Your task to perform on an android device: change text size in settings app Image 0: 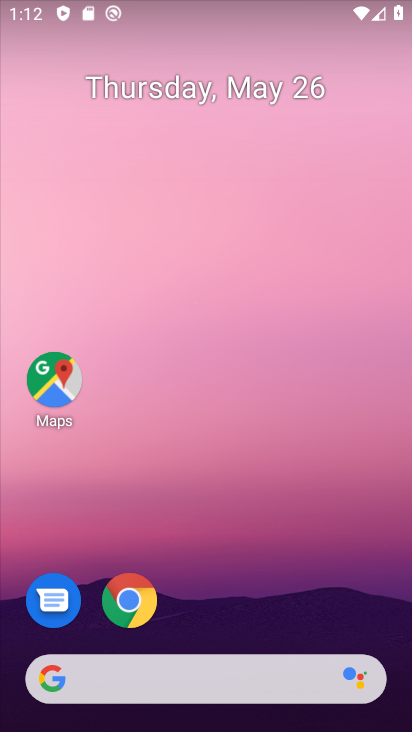
Step 0: drag from (243, 533) to (218, 77)
Your task to perform on an android device: change text size in settings app Image 1: 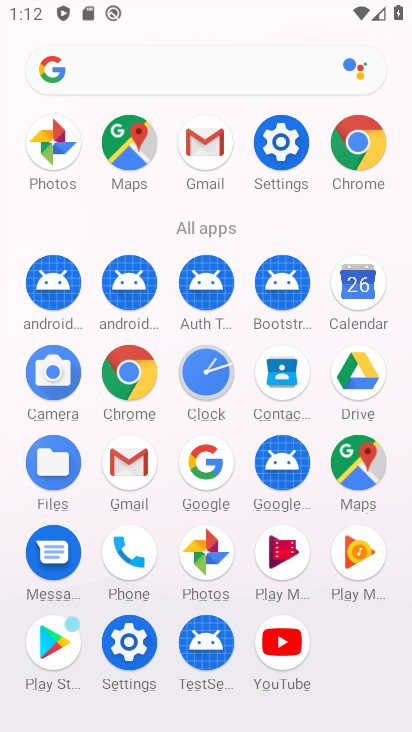
Step 1: click (282, 142)
Your task to perform on an android device: change text size in settings app Image 2: 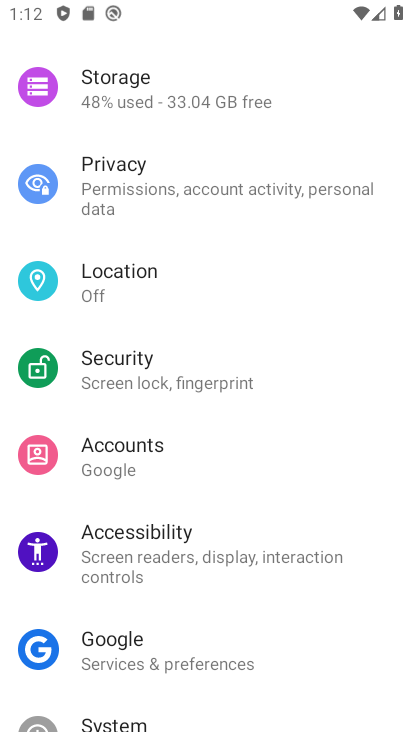
Step 2: drag from (129, 497) to (209, 371)
Your task to perform on an android device: change text size in settings app Image 3: 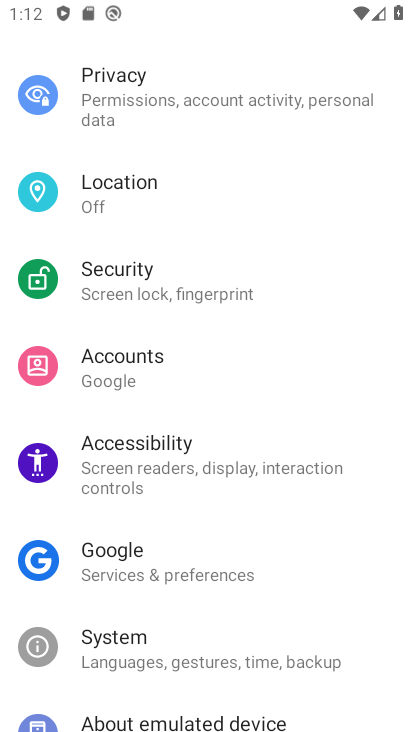
Step 3: click (129, 450)
Your task to perform on an android device: change text size in settings app Image 4: 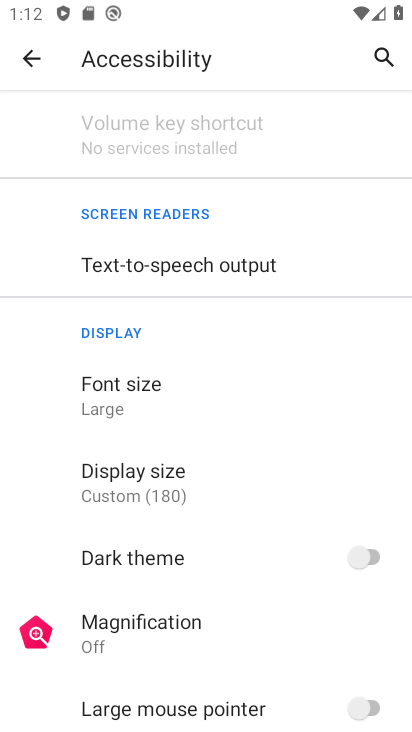
Step 4: click (142, 394)
Your task to perform on an android device: change text size in settings app Image 5: 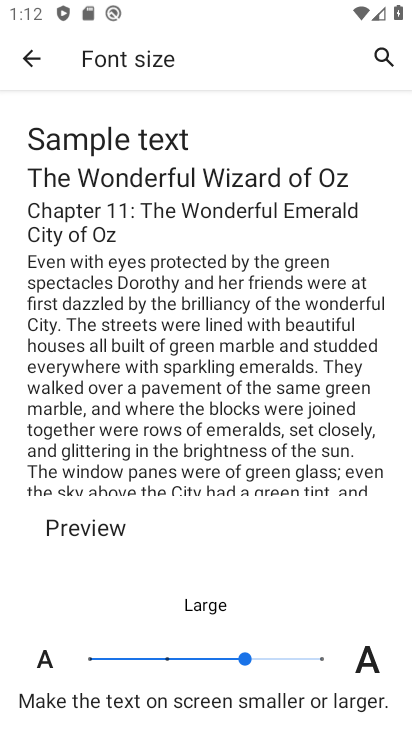
Step 5: click (168, 661)
Your task to perform on an android device: change text size in settings app Image 6: 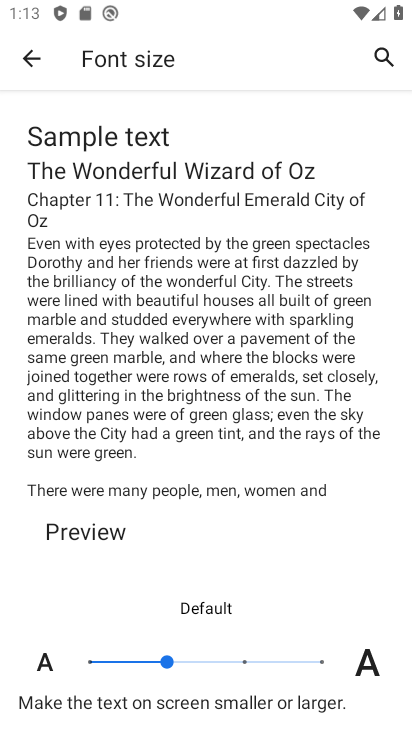
Step 6: task complete